Your task to perform on an android device: Open accessibility settings Image 0: 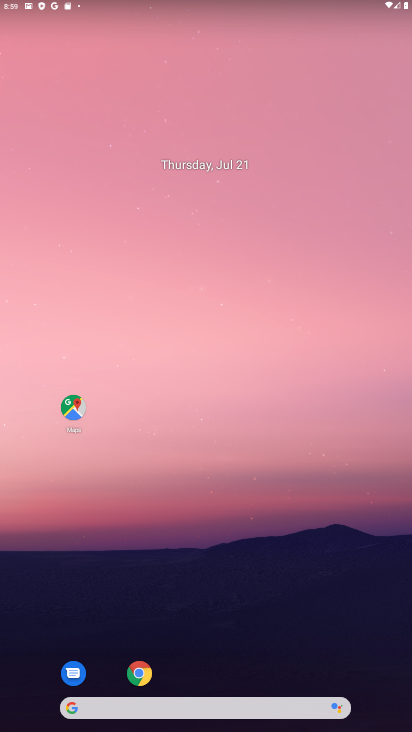
Step 0: drag from (227, 674) to (216, 104)
Your task to perform on an android device: Open accessibility settings Image 1: 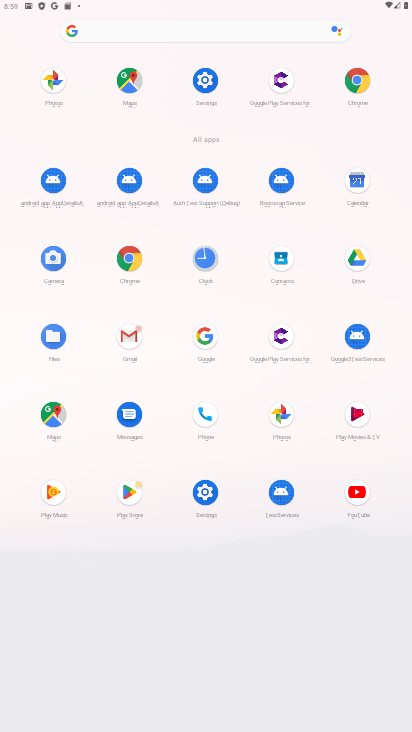
Step 1: click (202, 75)
Your task to perform on an android device: Open accessibility settings Image 2: 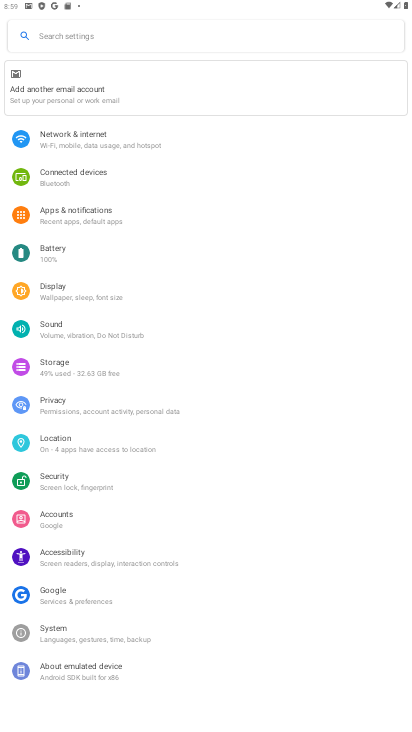
Step 2: click (81, 555)
Your task to perform on an android device: Open accessibility settings Image 3: 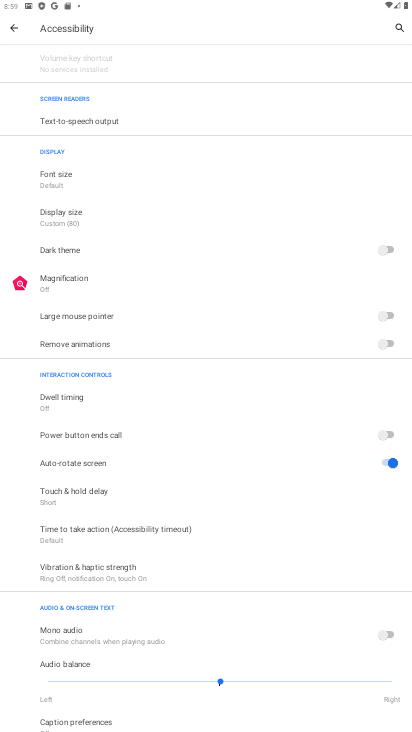
Step 3: task complete